Your task to perform on an android device: toggle data saver in the chrome app Image 0: 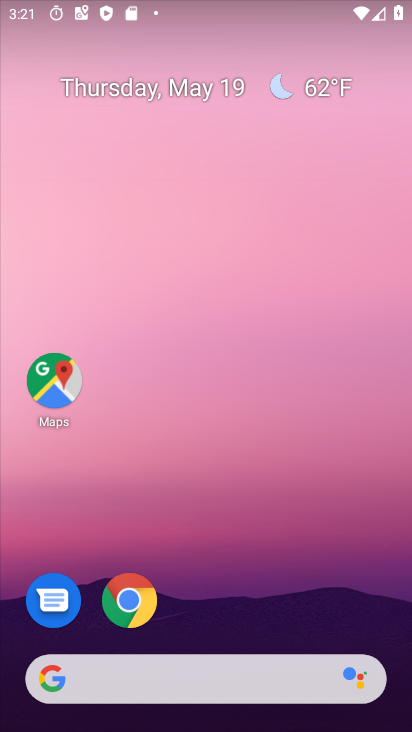
Step 0: drag from (38, 578) to (247, 205)
Your task to perform on an android device: toggle data saver in the chrome app Image 1: 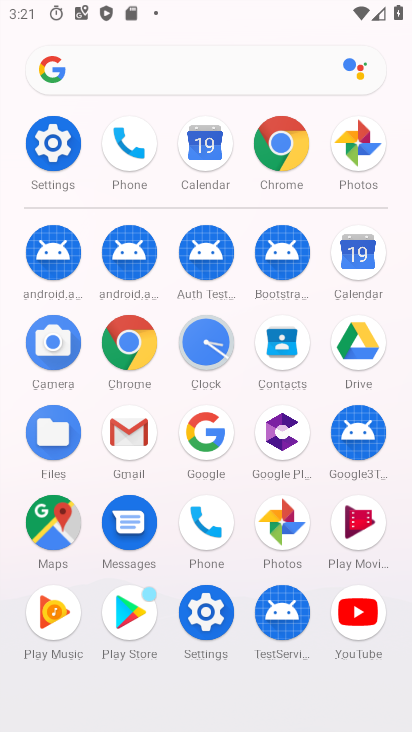
Step 1: click (57, 154)
Your task to perform on an android device: toggle data saver in the chrome app Image 2: 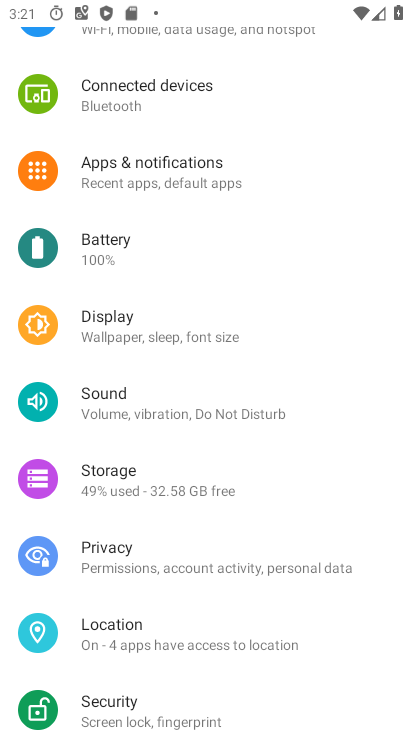
Step 2: press home button
Your task to perform on an android device: toggle data saver in the chrome app Image 3: 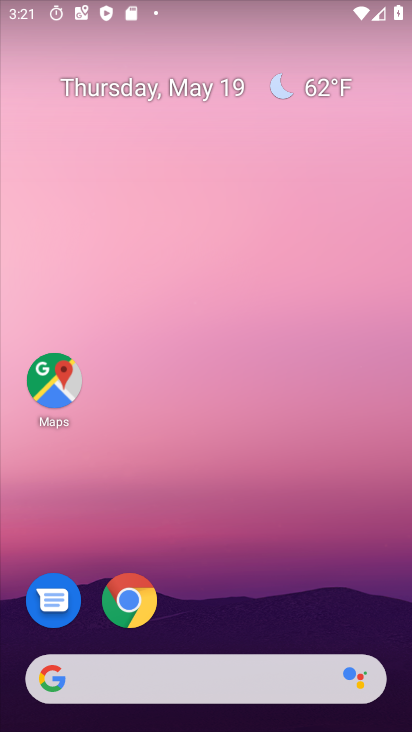
Step 3: click (122, 597)
Your task to perform on an android device: toggle data saver in the chrome app Image 4: 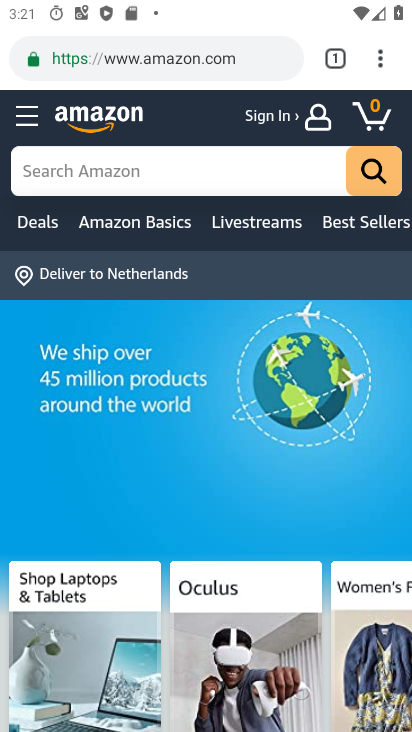
Step 4: click (379, 53)
Your task to perform on an android device: toggle data saver in the chrome app Image 5: 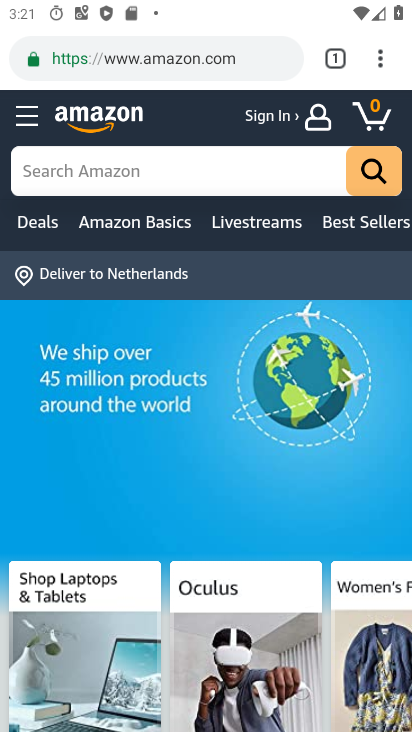
Step 5: click (372, 53)
Your task to perform on an android device: toggle data saver in the chrome app Image 6: 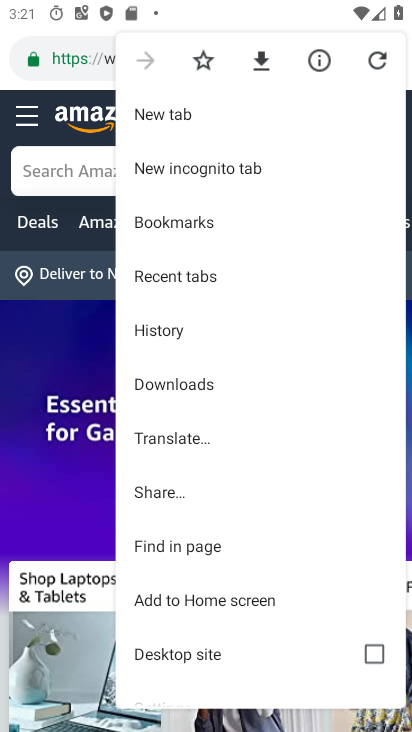
Step 6: drag from (223, 658) to (340, 148)
Your task to perform on an android device: toggle data saver in the chrome app Image 7: 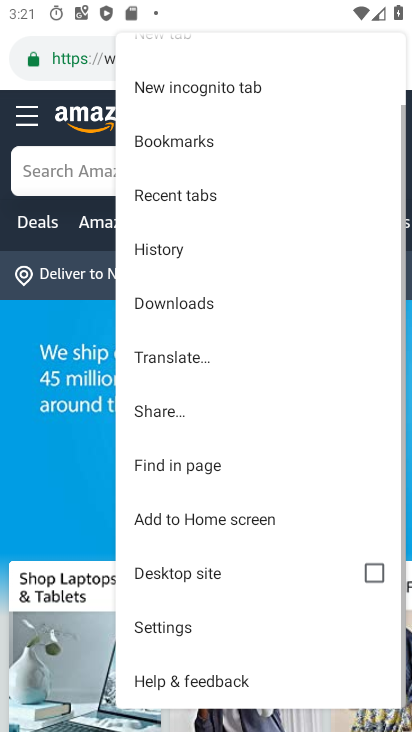
Step 7: click (217, 619)
Your task to perform on an android device: toggle data saver in the chrome app Image 8: 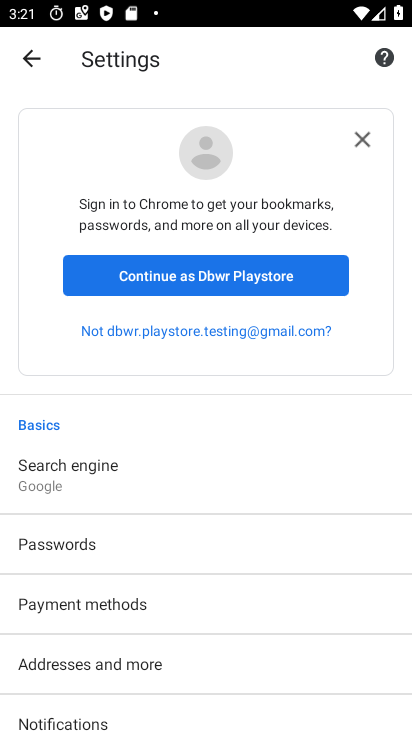
Step 8: click (356, 135)
Your task to perform on an android device: toggle data saver in the chrome app Image 9: 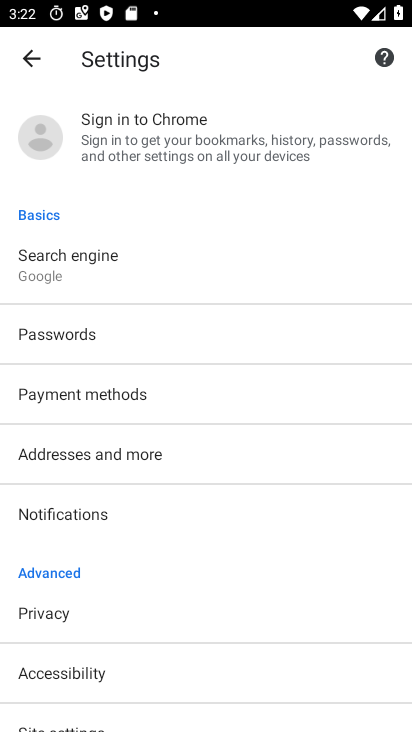
Step 9: drag from (0, 692) to (238, 257)
Your task to perform on an android device: toggle data saver in the chrome app Image 10: 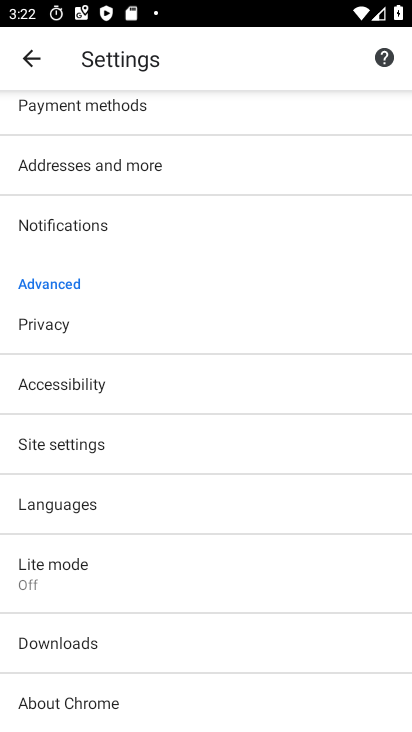
Step 10: click (61, 592)
Your task to perform on an android device: toggle data saver in the chrome app Image 11: 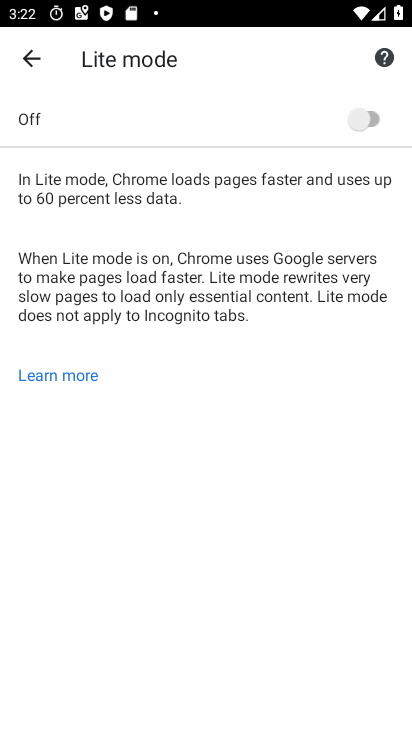
Step 11: click (362, 125)
Your task to perform on an android device: toggle data saver in the chrome app Image 12: 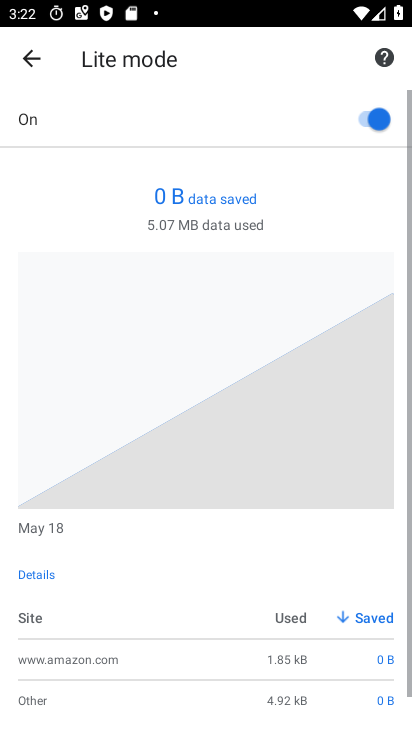
Step 12: task complete